Your task to perform on an android device: Search for "bose soundsport free" on newegg.com, select the first entry, and add it to the cart. Image 0: 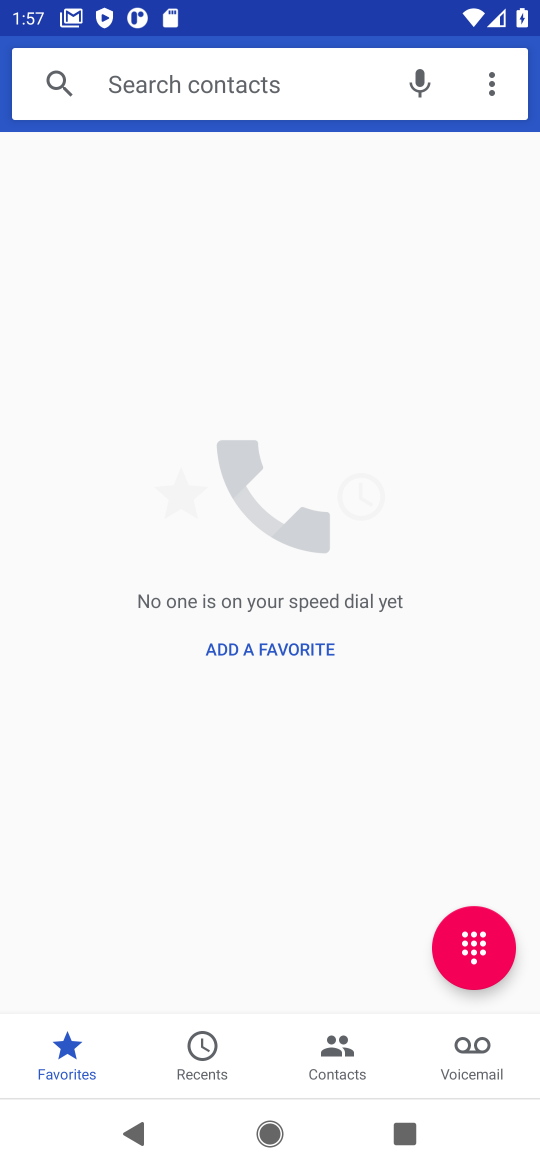
Step 0: task complete